Your task to perform on an android device: Go to network settings Image 0: 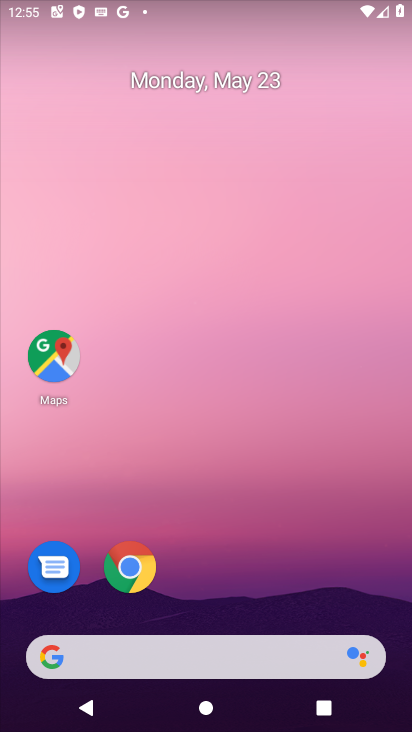
Step 0: drag from (241, 607) to (217, 64)
Your task to perform on an android device: Go to network settings Image 1: 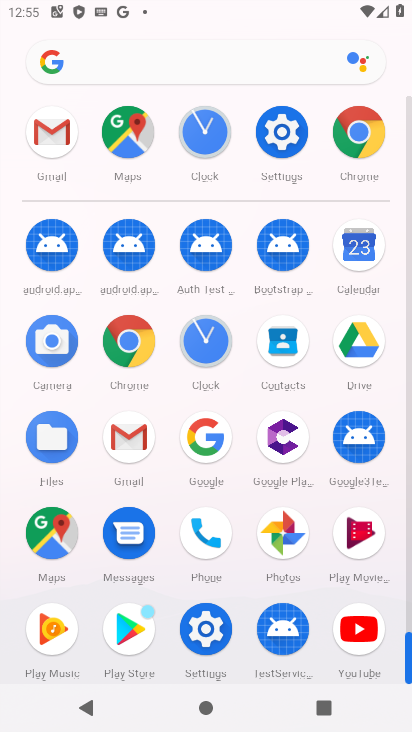
Step 1: click (277, 140)
Your task to perform on an android device: Go to network settings Image 2: 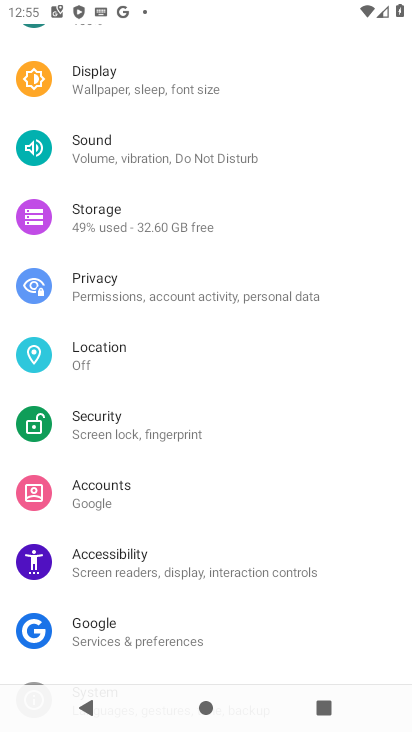
Step 2: drag from (163, 84) to (132, 500)
Your task to perform on an android device: Go to network settings Image 3: 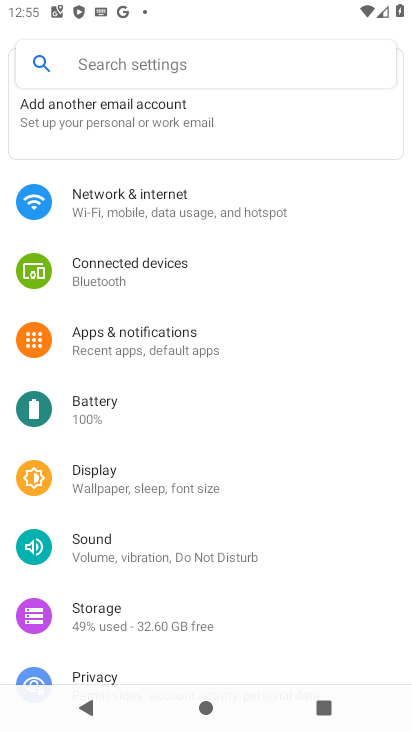
Step 3: click (166, 213)
Your task to perform on an android device: Go to network settings Image 4: 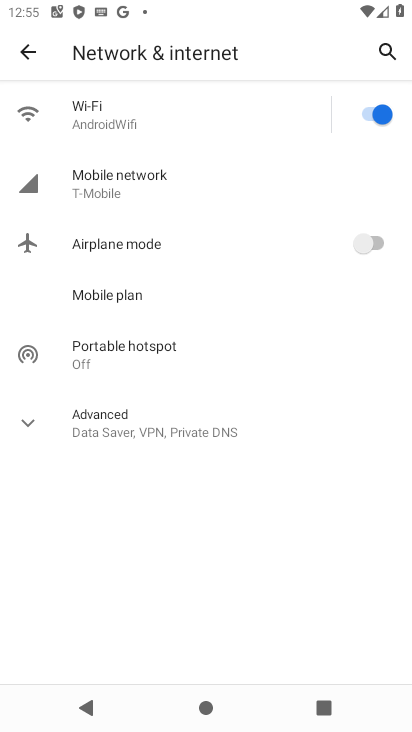
Step 4: task complete